Your task to perform on an android device: Open Youtube and go to "Your channel" Image 0: 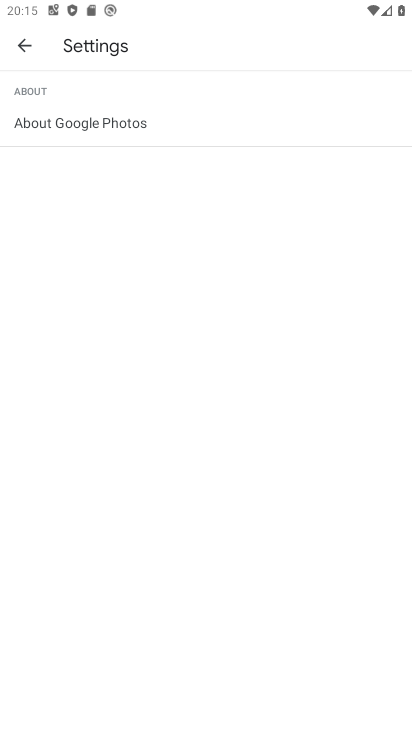
Step 0: press home button
Your task to perform on an android device: Open Youtube and go to "Your channel" Image 1: 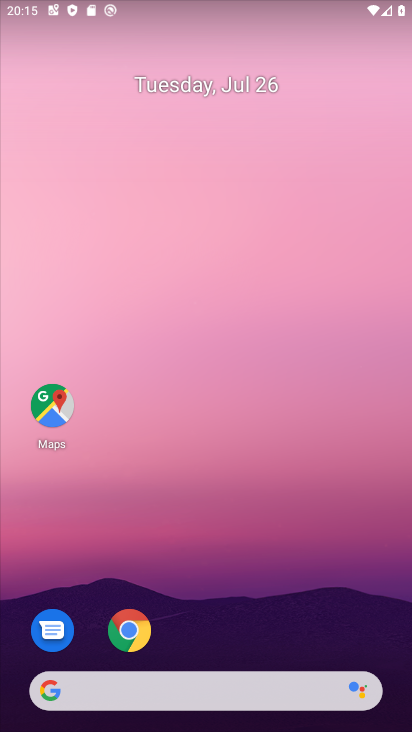
Step 1: drag from (359, 560) to (357, 116)
Your task to perform on an android device: Open Youtube and go to "Your channel" Image 2: 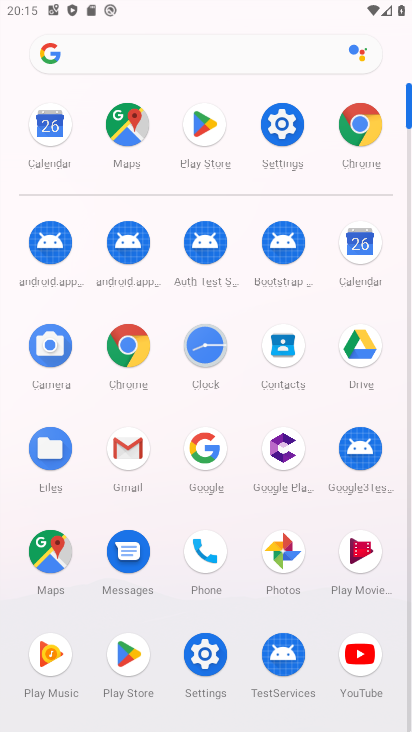
Step 2: click (362, 661)
Your task to perform on an android device: Open Youtube and go to "Your channel" Image 3: 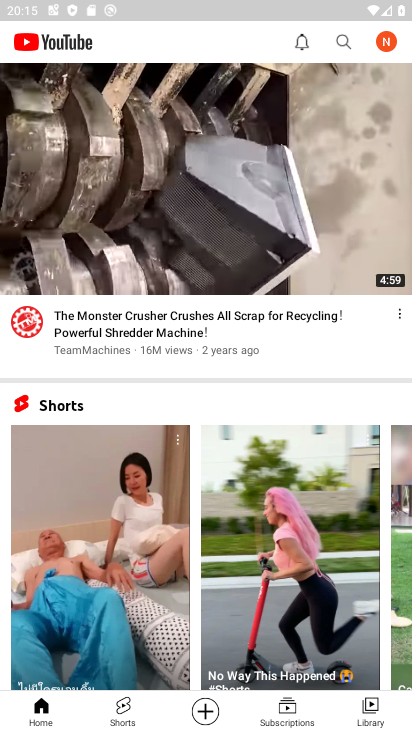
Step 3: click (380, 38)
Your task to perform on an android device: Open Youtube and go to "Your channel" Image 4: 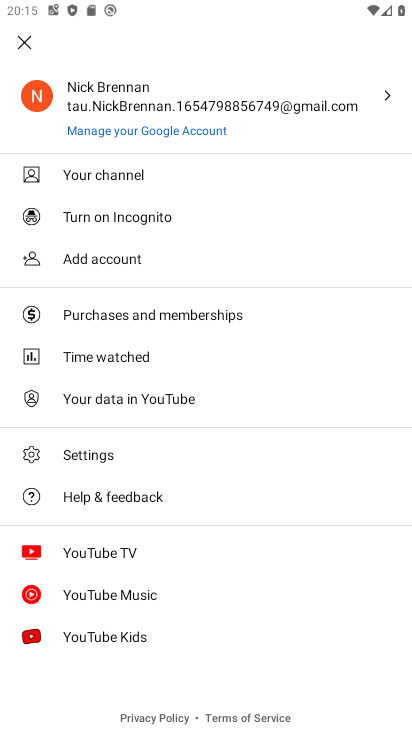
Step 4: click (149, 181)
Your task to perform on an android device: Open Youtube and go to "Your channel" Image 5: 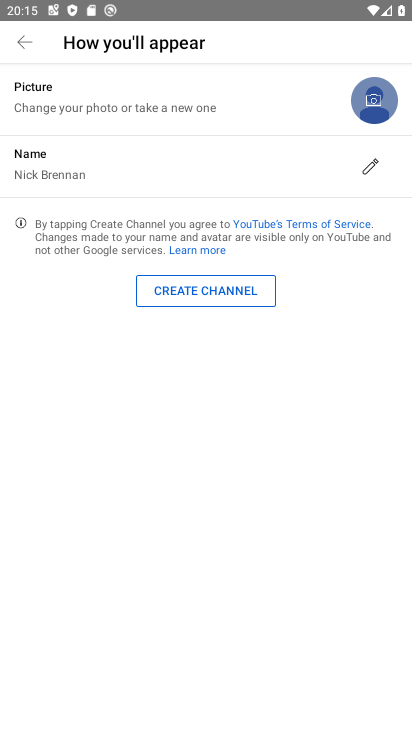
Step 5: task complete